Your task to perform on an android device: Empty the shopping cart on costco.com. Add usb-b to the cart on costco.com Image 0: 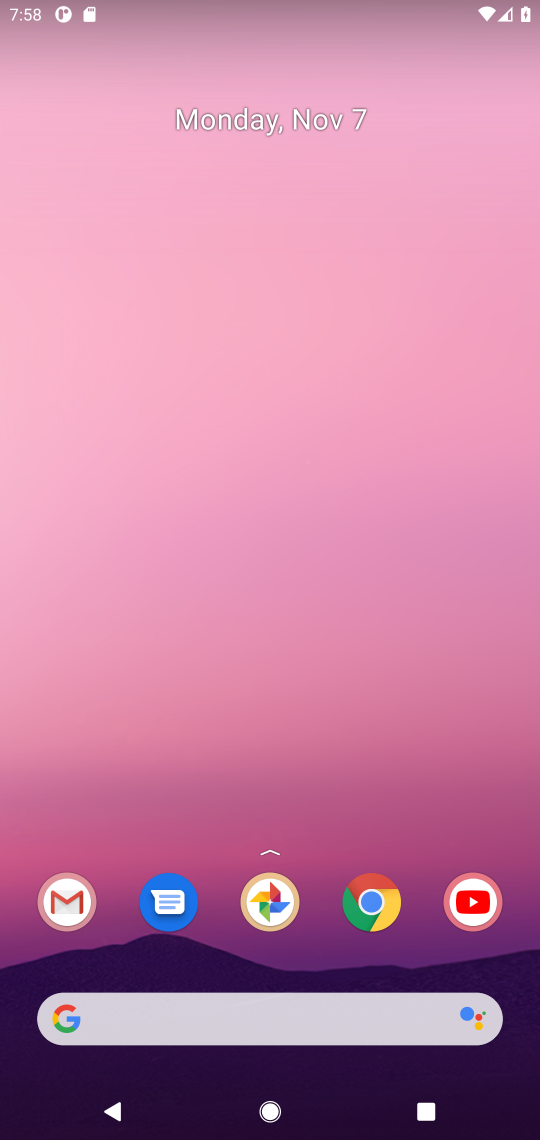
Step 0: click (372, 907)
Your task to perform on an android device: Empty the shopping cart on costco.com. Add usb-b to the cart on costco.com Image 1: 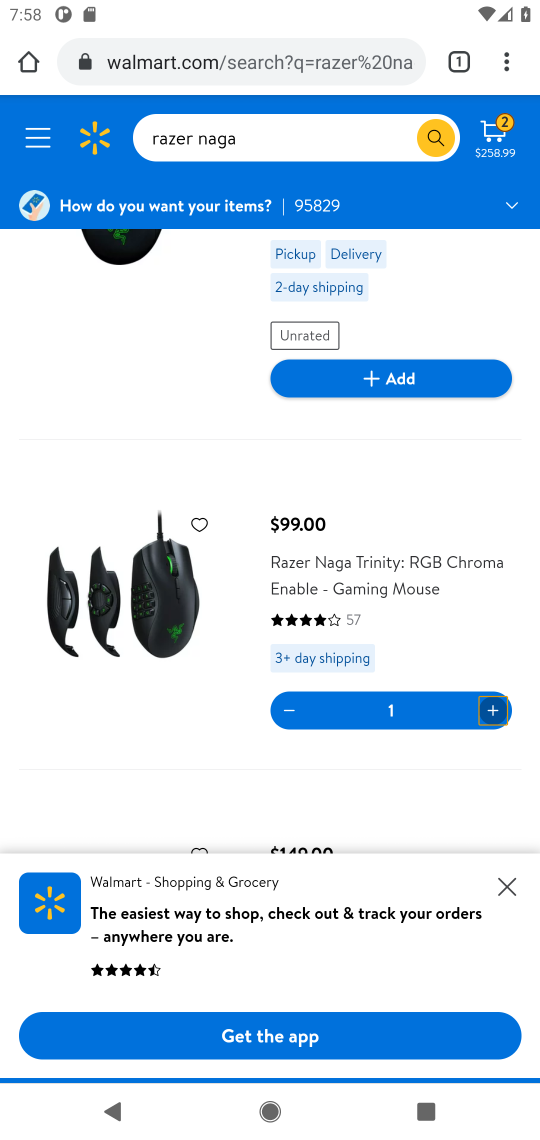
Step 1: click (233, 71)
Your task to perform on an android device: Empty the shopping cart on costco.com. Add usb-b to the cart on costco.com Image 2: 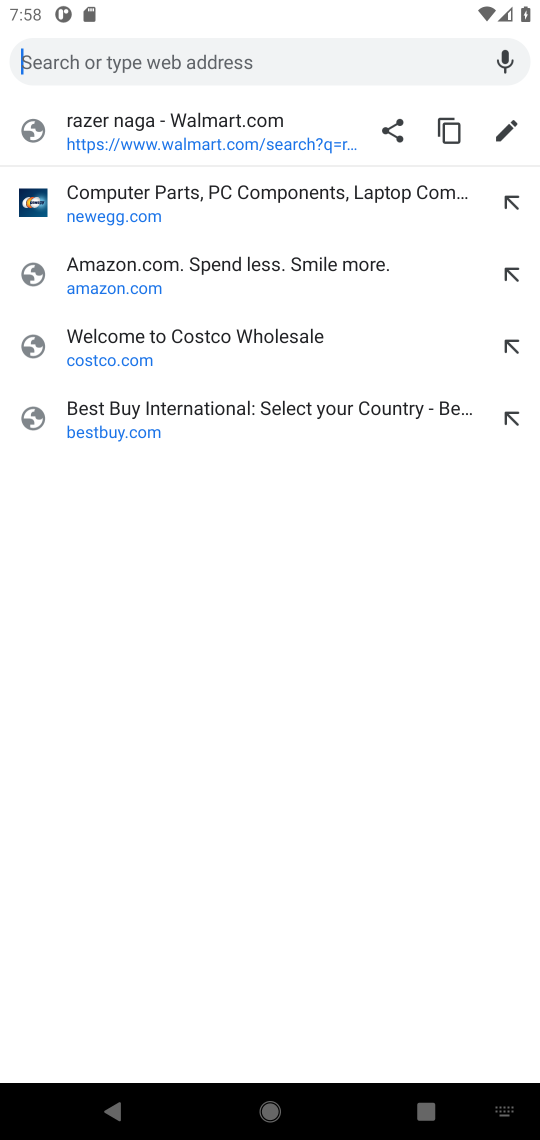
Step 2: click (114, 356)
Your task to perform on an android device: Empty the shopping cart on costco.com. Add usb-b to the cart on costco.com Image 3: 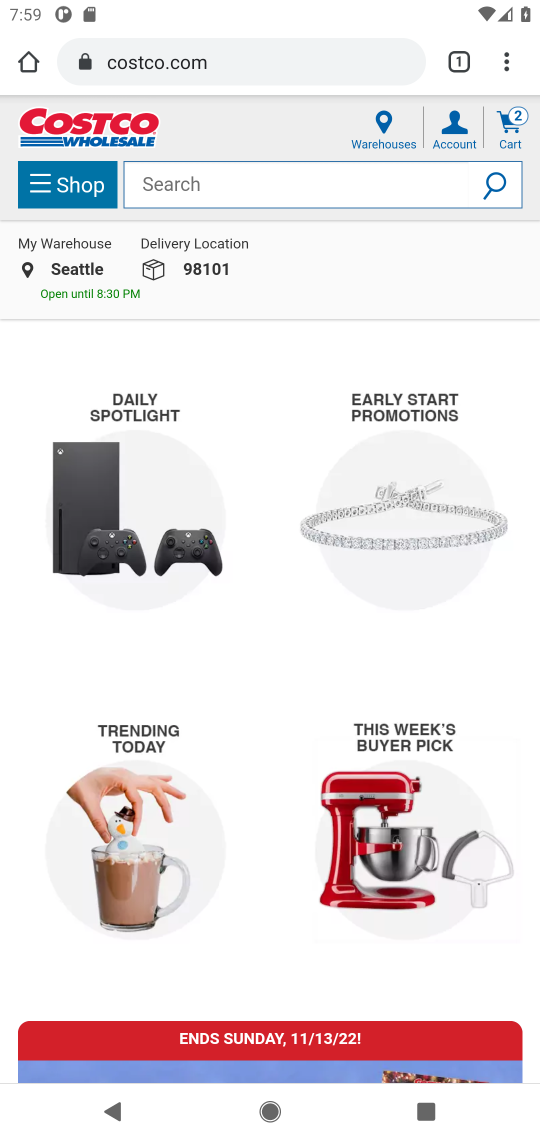
Step 3: click (513, 128)
Your task to perform on an android device: Empty the shopping cart on costco.com. Add usb-b to the cart on costco.com Image 4: 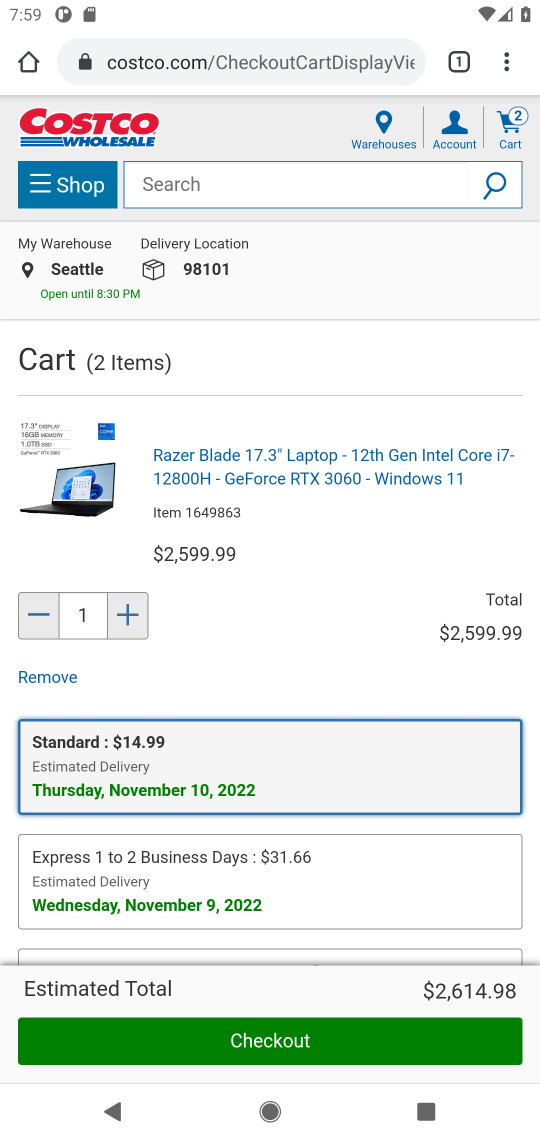
Step 4: drag from (248, 865) to (255, 431)
Your task to perform on an android device: Empty the shopping cart on costco.com. Add usb-b to the cart on costco.com Image 5: 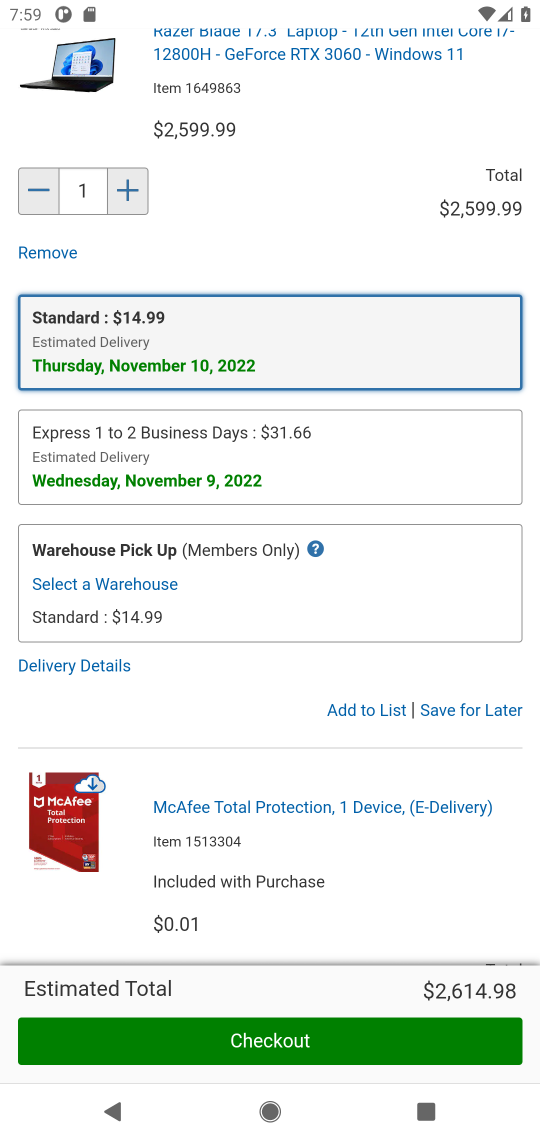
Step 5: click (460, 710)
Your task to perform on an android device: Empty the shopping cart on costco.com. Add usb-b to the cart on costco.com Image 6: 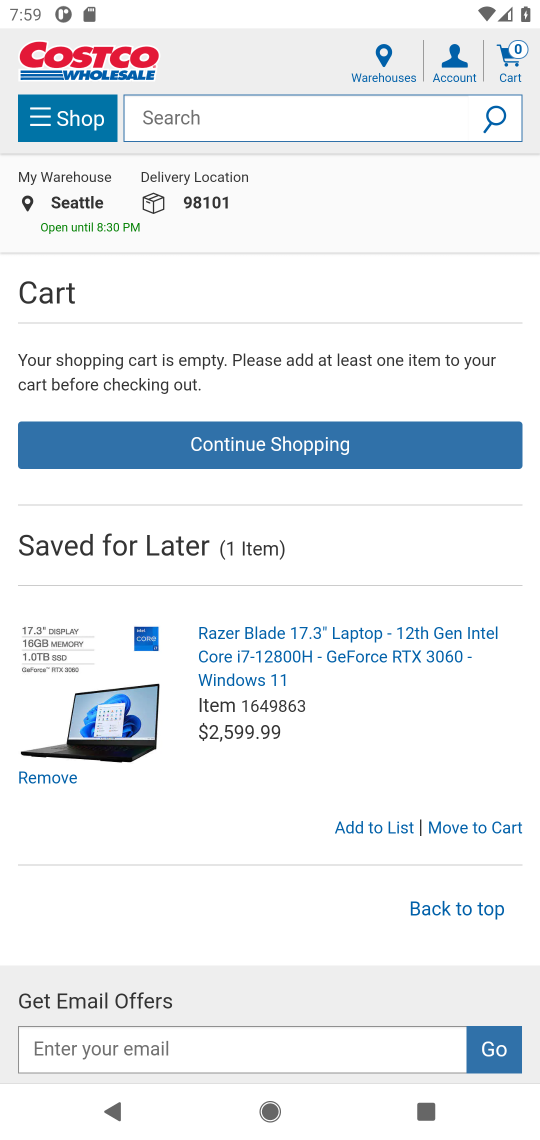
Step 6: drag from (319, 793) to (309, 415)
Your task to perform on an android device: Empty the shopping cart on costco.com. Add usb-b to the cart on costco.com Image 7: 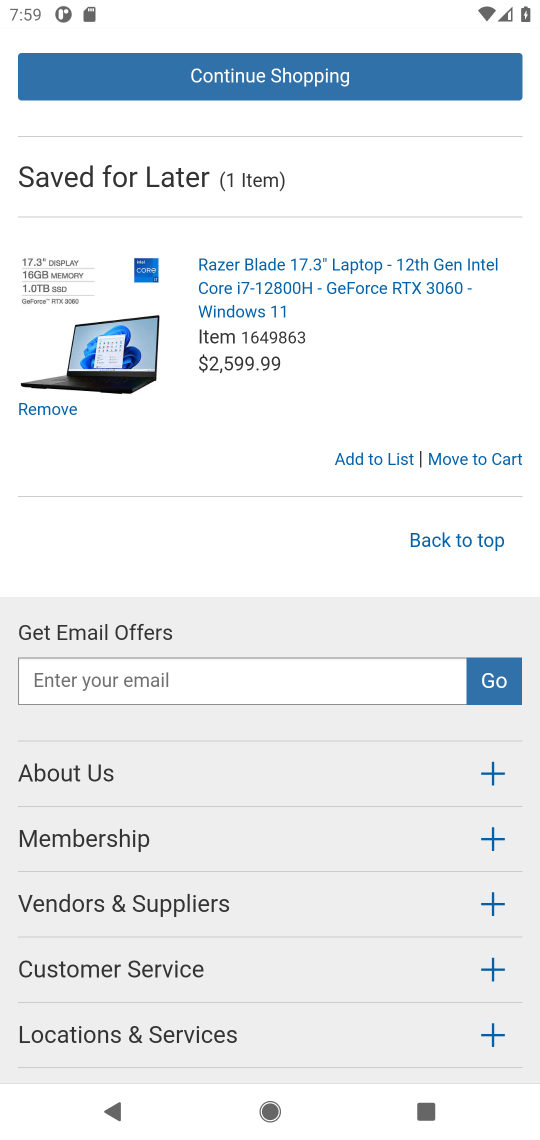
Step 7: drag from (298, 384) to (299, 677)
Your task to perform on an android device: Empty the shopping cart on costco.com. Add usb-b to the cart on costco.com Image 8: 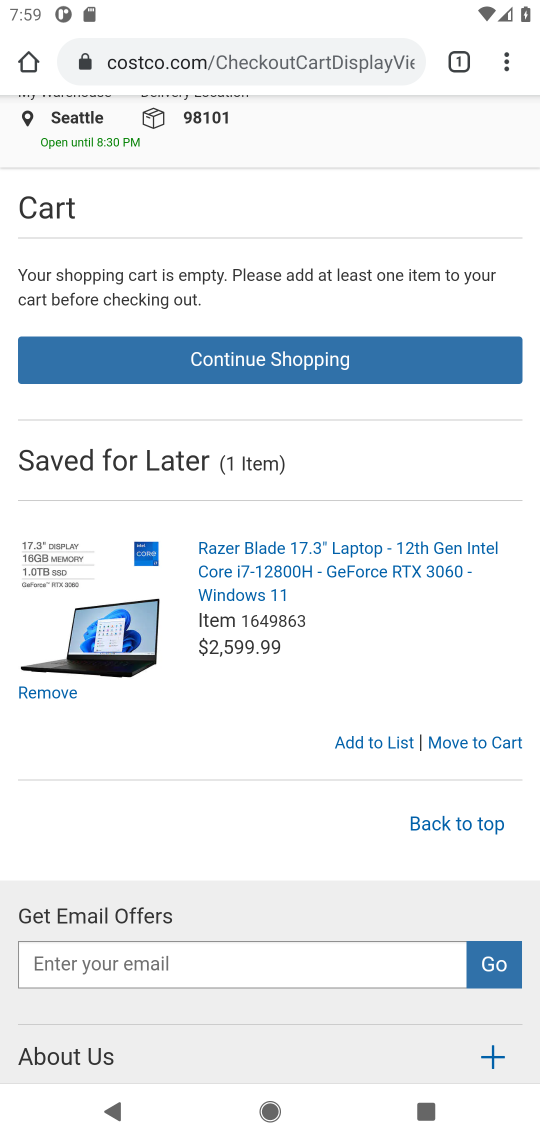
Step 8: drag from (284, 314) to (295, 666)
Your task to perform on an android device: Empty the shopping cart on costco.com. Add usb-b to the cart on costco.com Image 9: 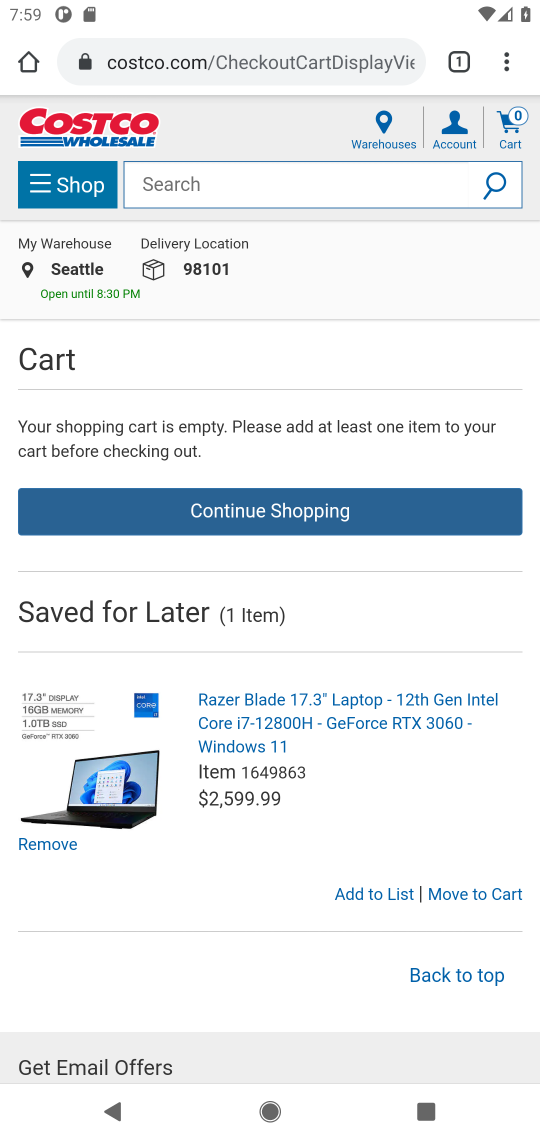
Step 9: click (177, 195)
Your task to perform on an android device: Empty the shopping cart on costco.com. Add usb-b to the cart on costco.com Image 10: 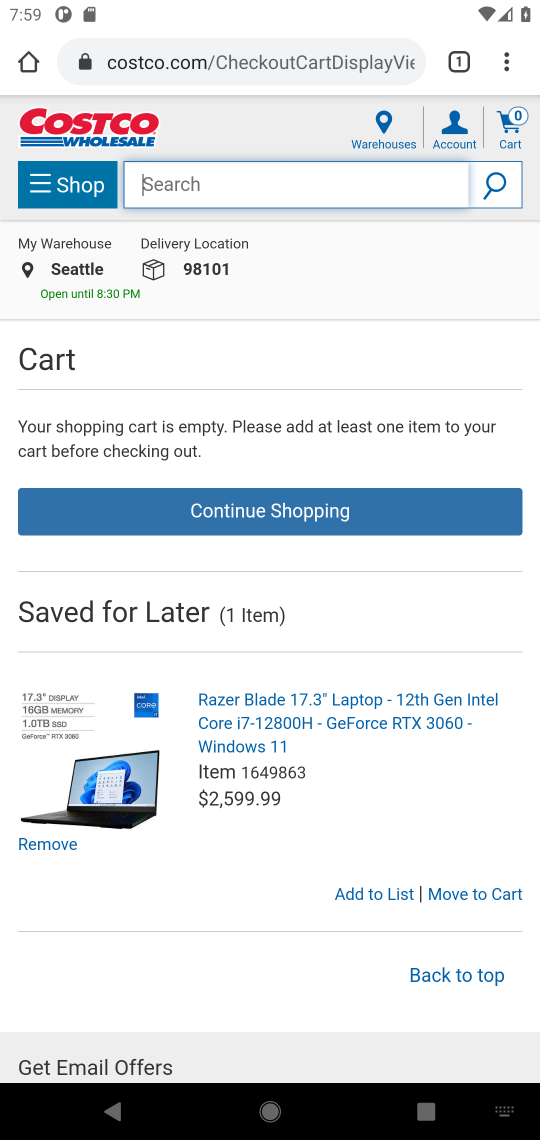
Step 10: type "usb-b"
Your task to perform on an android device: Empty the shopping cart on costco.com. Add usb-b to the cart on costco.com Image 11: 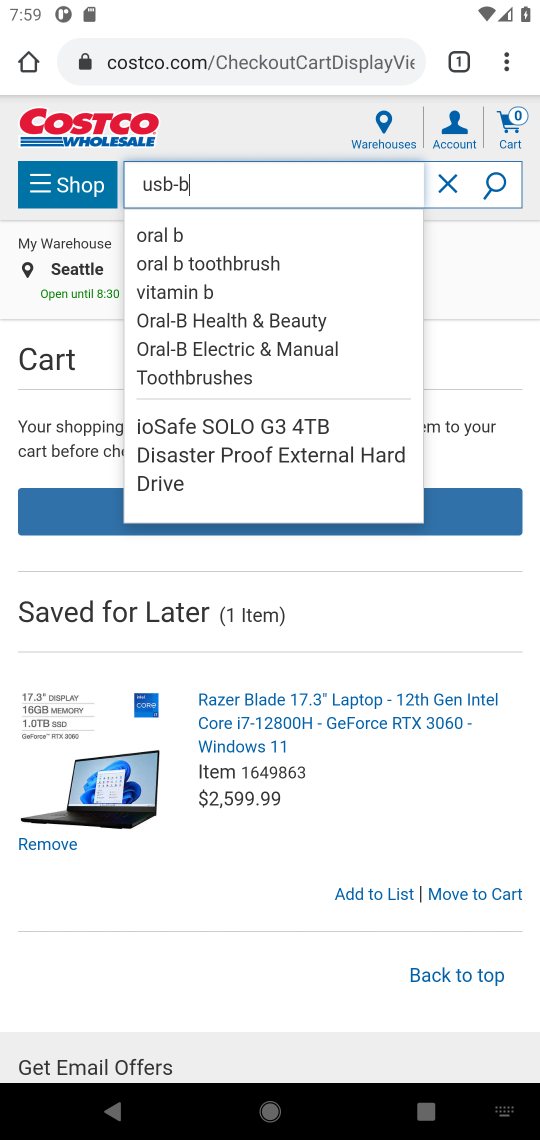
Step 11: click (497, 184)
Your task to perform on an android device: Empty the shopping cart on costco.com. Add usb-b to the cart on costco.com Image 12: 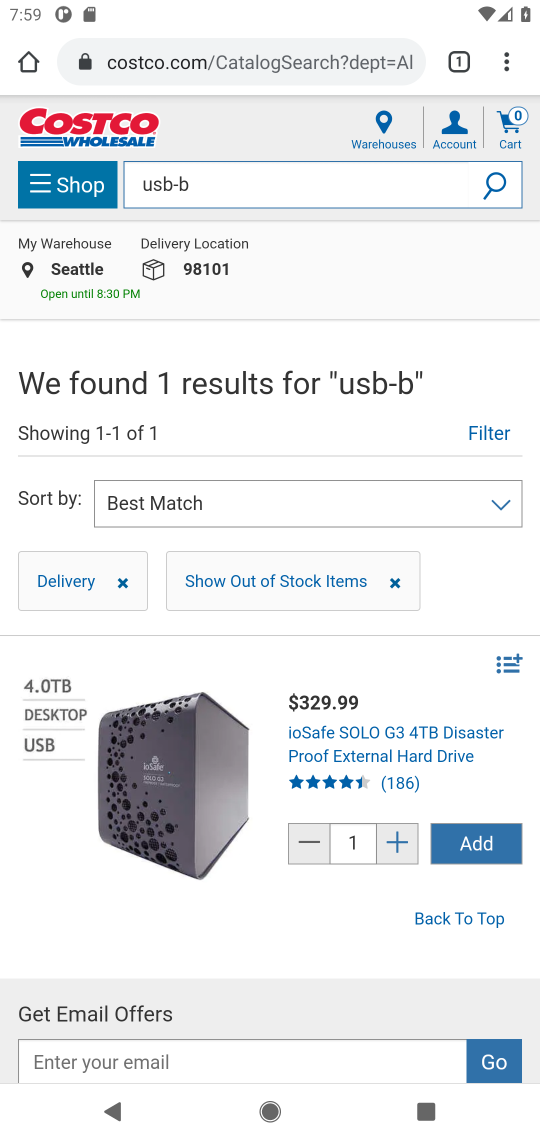
Step 12: task complete